Your task to perform on an android device: Open notification settings Image 0: 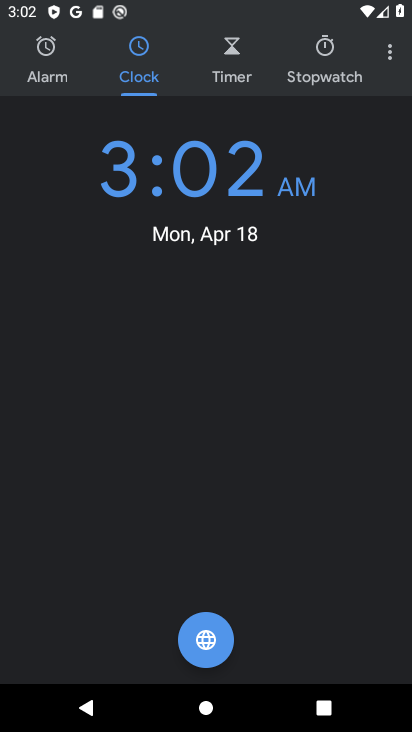
Step 0: click (391, 58)
Your task to perform on an android device: Open notification settings Image 1: 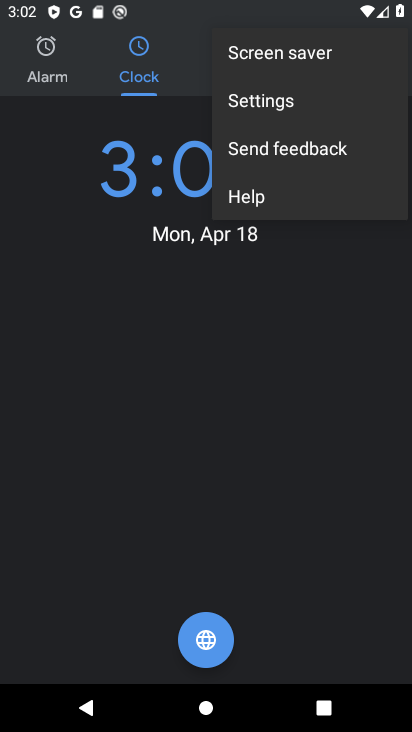
Step 1: click (263, 96)
Your task to perform on an android device: Open notification settings Image 2: 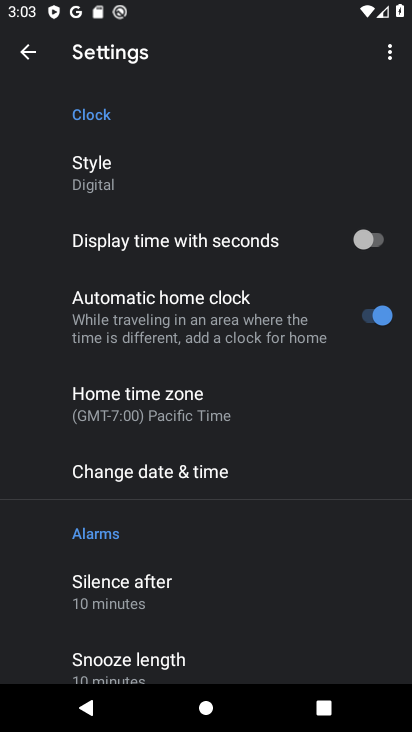
Step 2: drag from (235, 612) to (189, 296)
Your task to perform on an android device: Open notification settings Image 3: 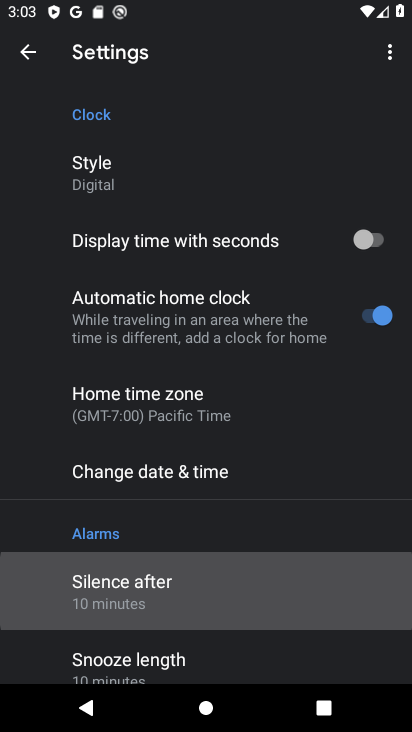
Step 3: drag from (307, 535) to (204, 224)
Your task to perform on an android device: Open notification settings Image 4: 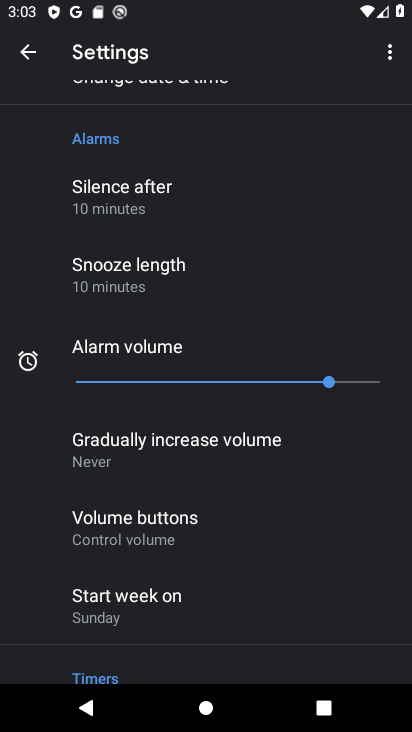
Step 4: drag from (313, 427) to (293, 318)
Your task to perform on an android device: Open notification settings Image 5: 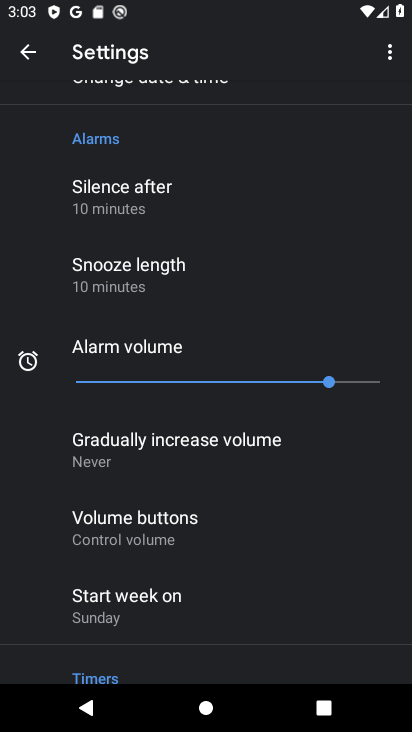
Step 5: press home button
Your task to perform on an android device: Open notification settings Image 6: 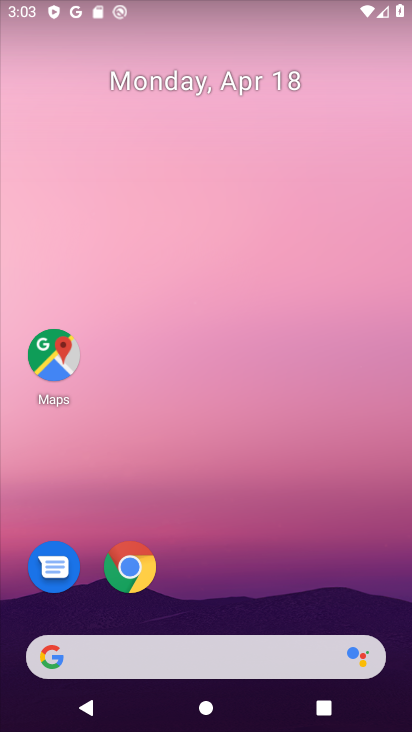
Step 6: drag from (294, 607) to (176, 204)
Your task to perform on an android device: Open notification settings Image 7: 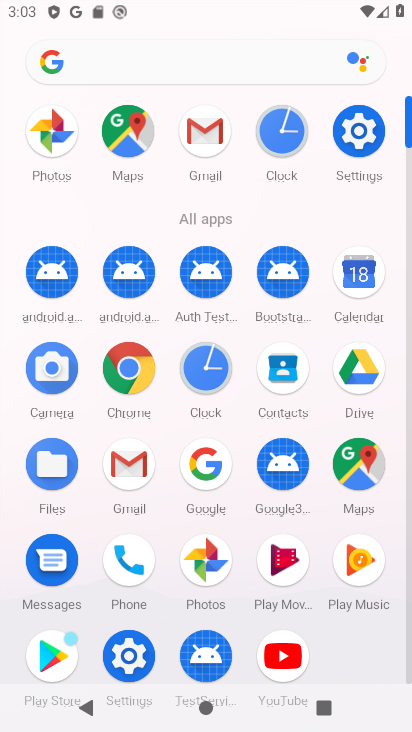
Step 7: click (348, 142)
Your task to perform on an android device: Open notification settings Image 8: 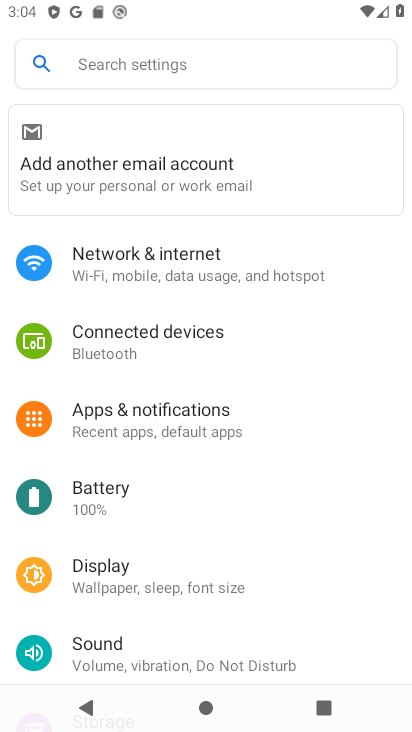
Step 8: click (140, 415)
Your task to perform on an android device: Open notification settings Image 9: 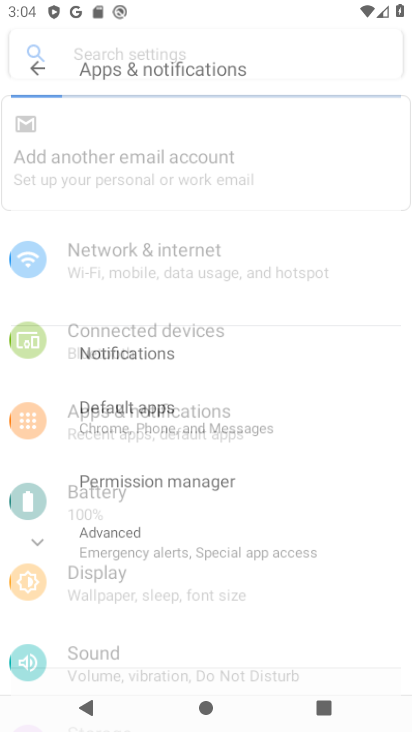
Step 9: click (135, 417)
Your task to perform on an android device: Open notification settings Image 10: 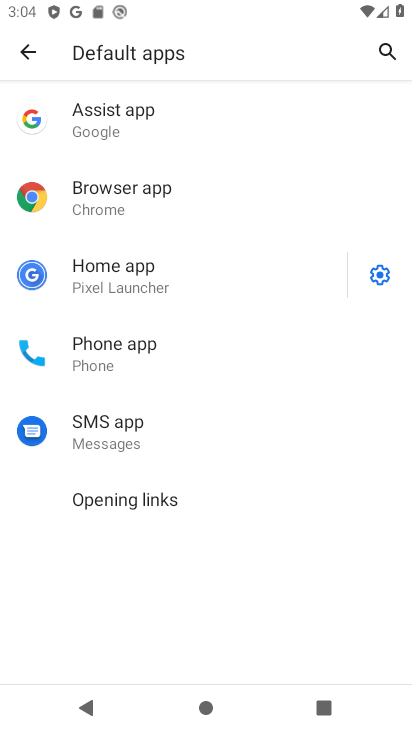
Step 10: task complete